Your task to perform on an android device: Open Google Image 0: 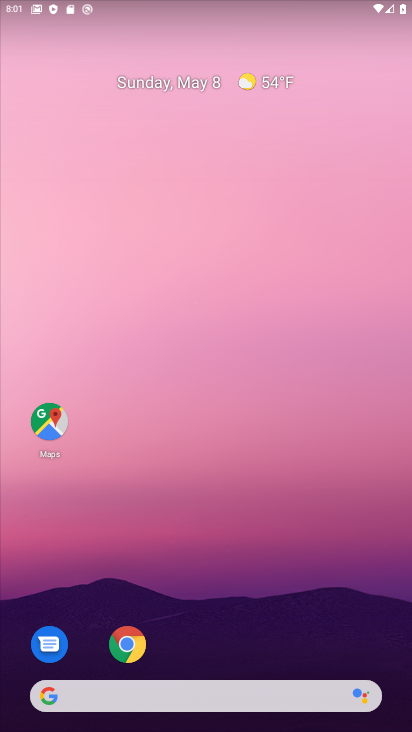
Step 0: drag from (191, 680) to (232, 339)
Your task to perform on an android device: Open Google Image 1: 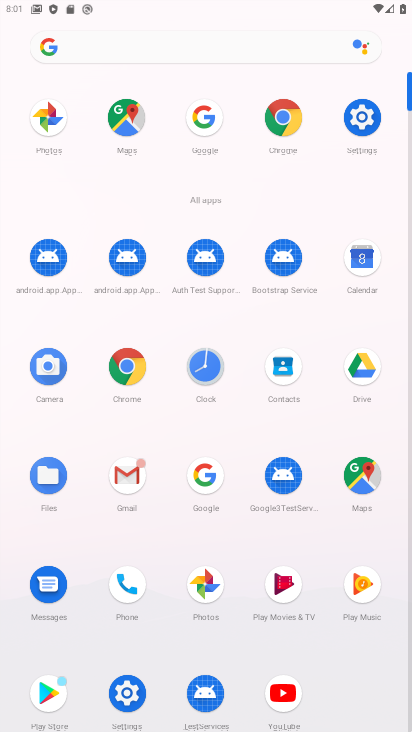
Step 1: click (208, 483)
Your task to perform on an android device: Open Google Image 2: 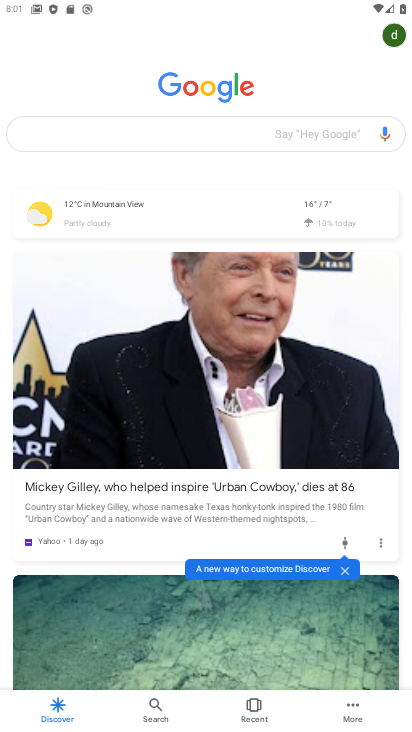
Step 2: task complete